Your task to perform on an android device: Search for sushi restaurants on Maps Image 0: 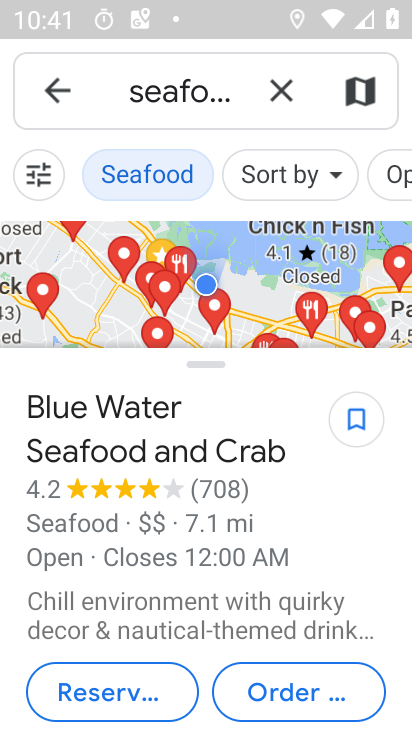
Step 0: click (275, 93)
Your task to perform on an android device: Search for sushi restaurants on Maps Image 1: 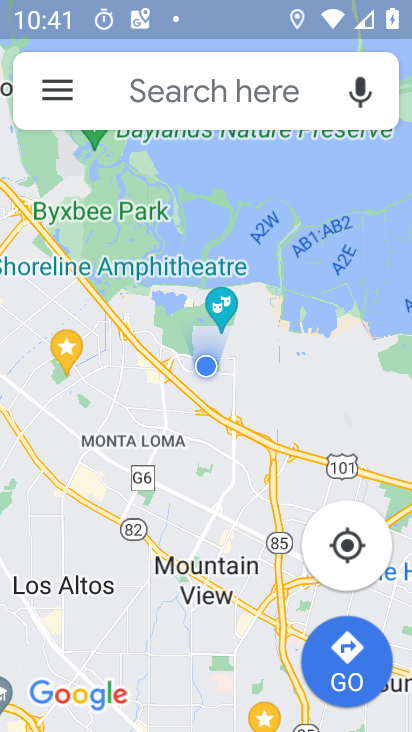
Step 1: click (237, 107)
Your task to perform on an android device: Search for sushi restaurants on Maps Image 2: 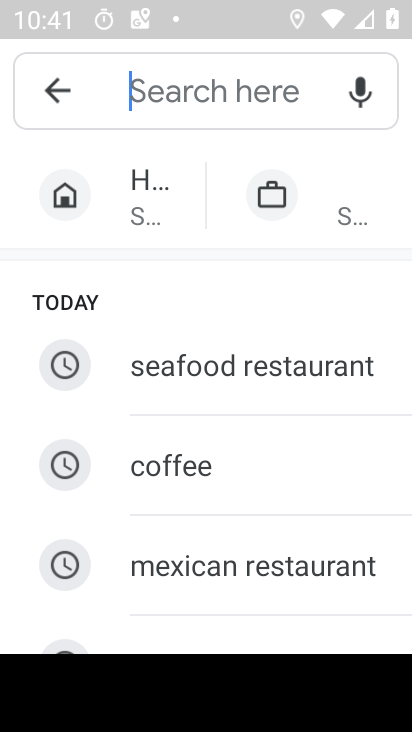
Step 2: type "sushi restaurants"
Your task to perform on an android device: Search for sushi restaurants on Maps Image 3: 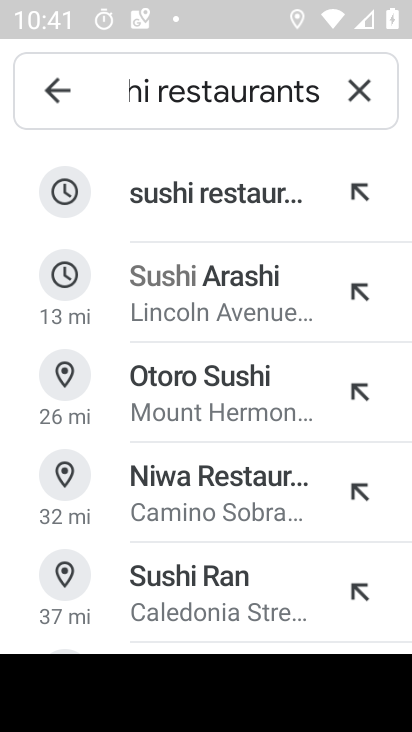
Step 3: click (267, 190)
Your task to perform on an android device: Search for sushi restaurants on Maps Image 4: 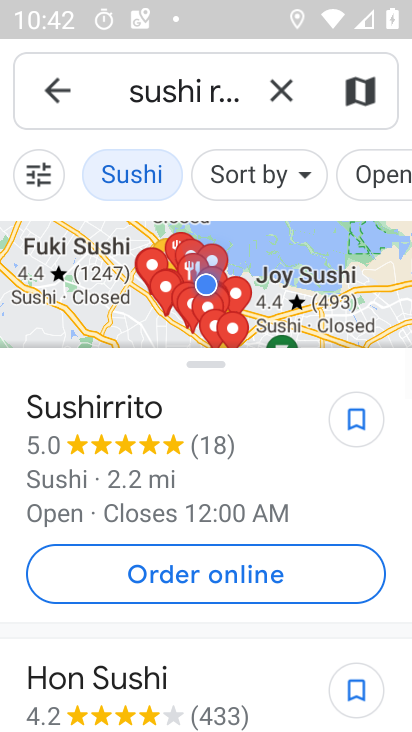
Step 4: task complete